Your task to perform on an android device: change text size in settings app Image 0: 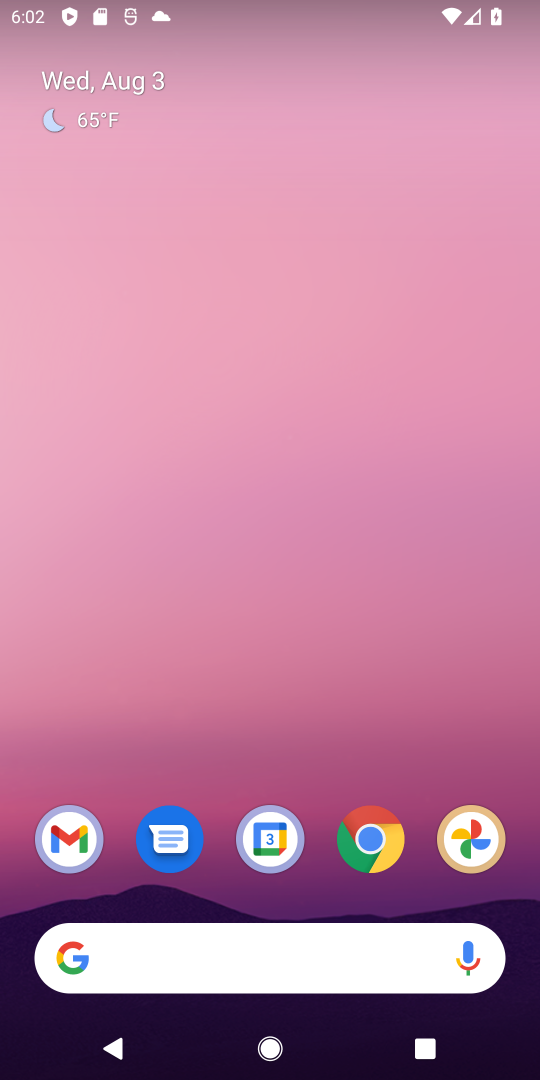
Step 0: drag from (231, 798) to (344, 20)
Your task to perform on an android device: change text size in settings app Image 1: 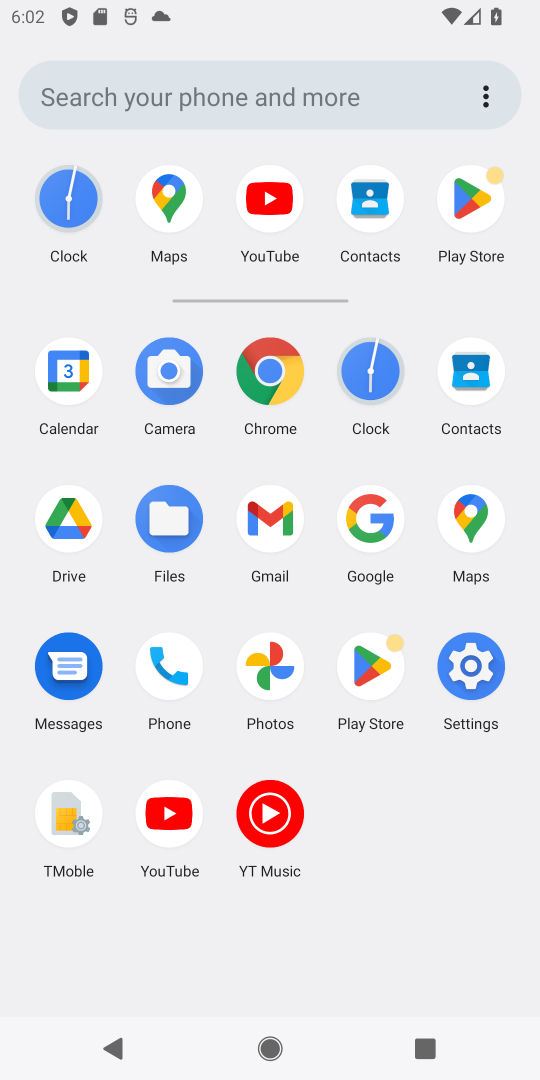
Step 1: click (467, 657)
Your task to perform on an android device: change text size in settings app Image 2: 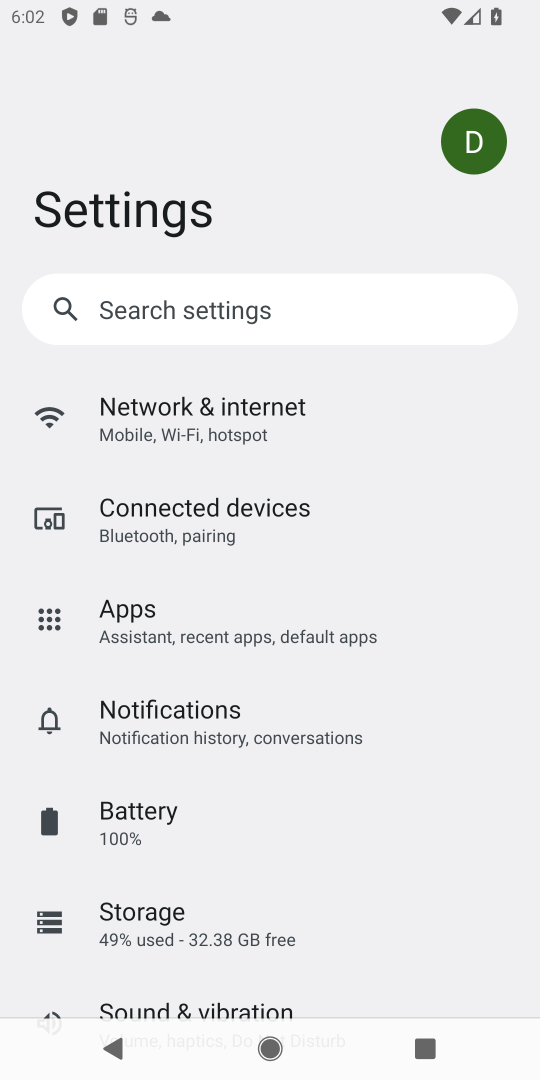
Step 2: click (244, 312)
Your task to perform on an android device: change text size in settings app Image 3: 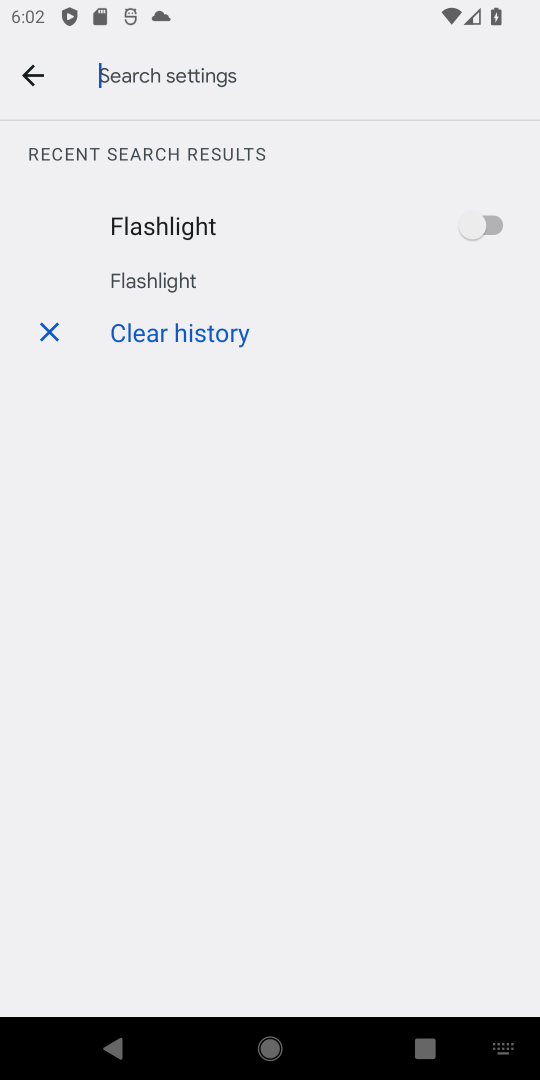
Step 3: type "text size"
Your task to perform on an android device: change text size in settings app Image 4: 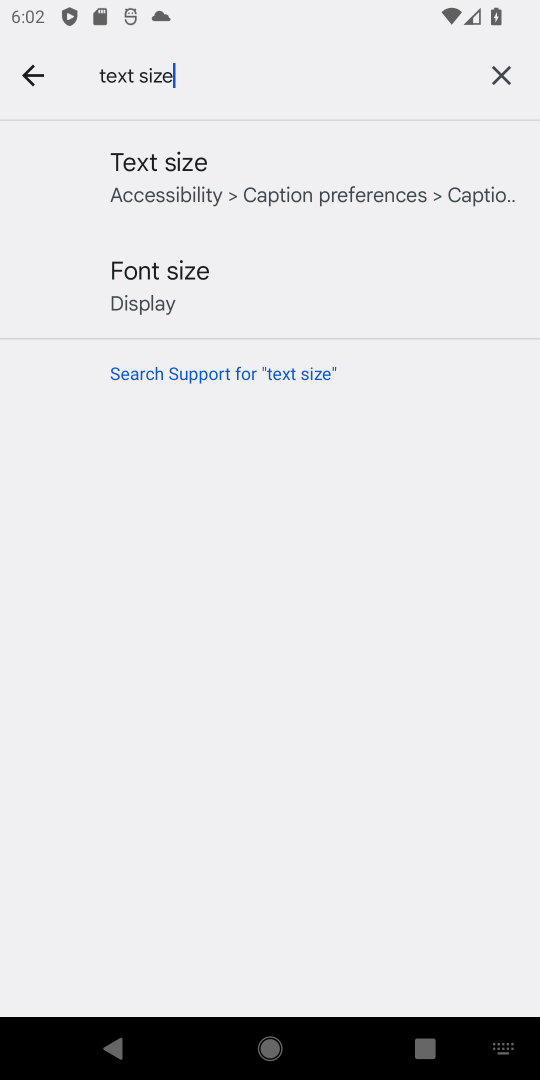
Step 4: click (322, 168)
Your task to perform on an android device: change text size in settings app Image 5: 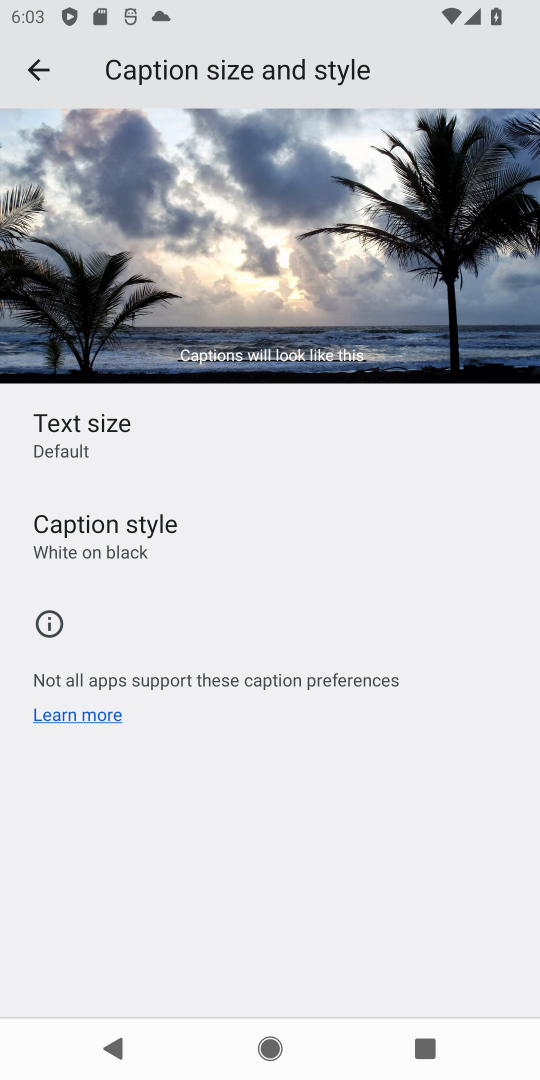
Step 5: click (129, 446)
Your task to perform on an android device: change text size in settings app Image 6: 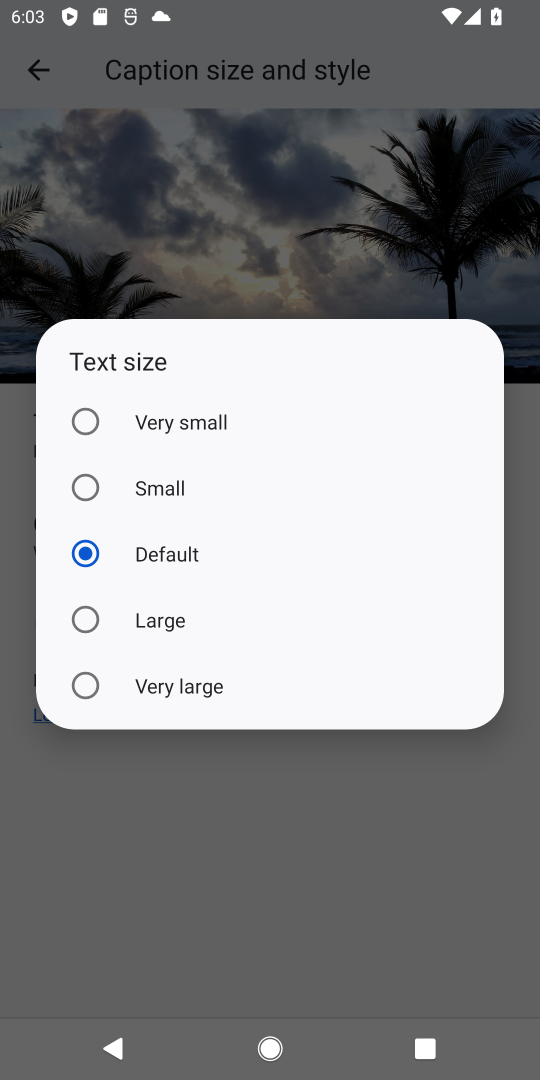
Step 6: click (79, 610)
Your task to perform on an android device: change text size in settings app Image 7: 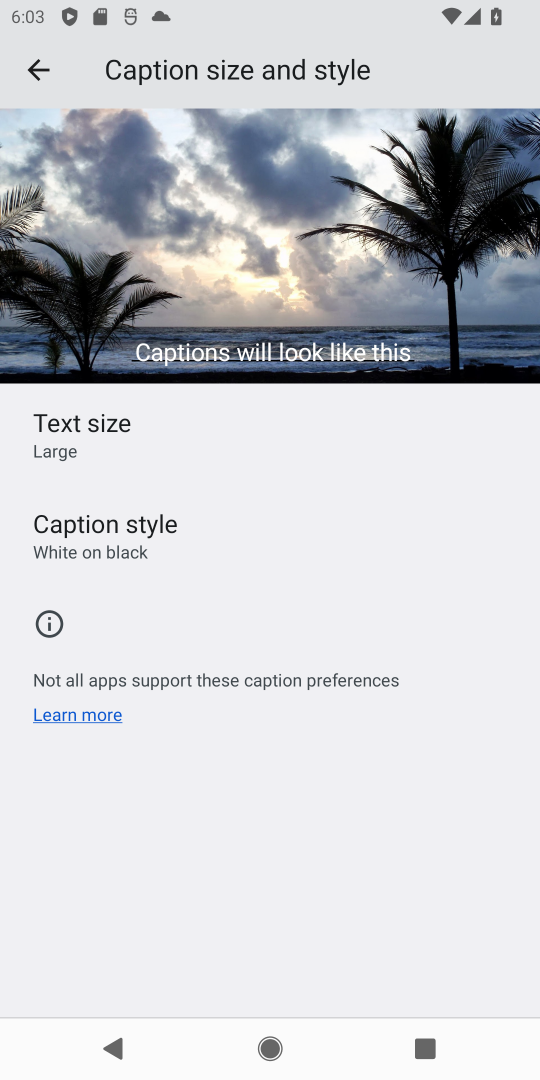
Step 7: click (31, 87)
Your task to perform on an android device: change text size in settings app Image 8: 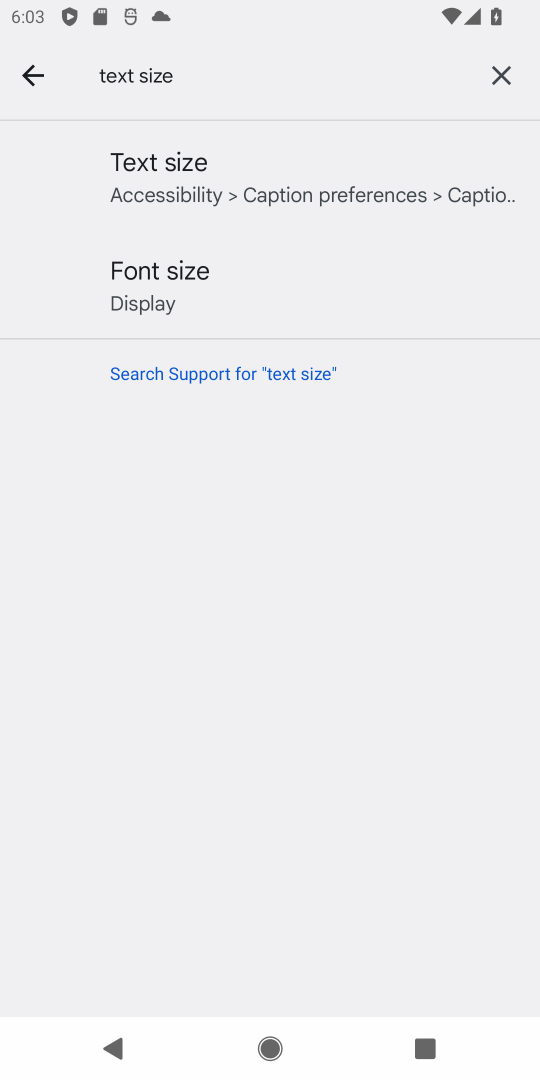
Step 8: click (161, 274)
Your task to perform on an android device: change text size in settings app Image 9: 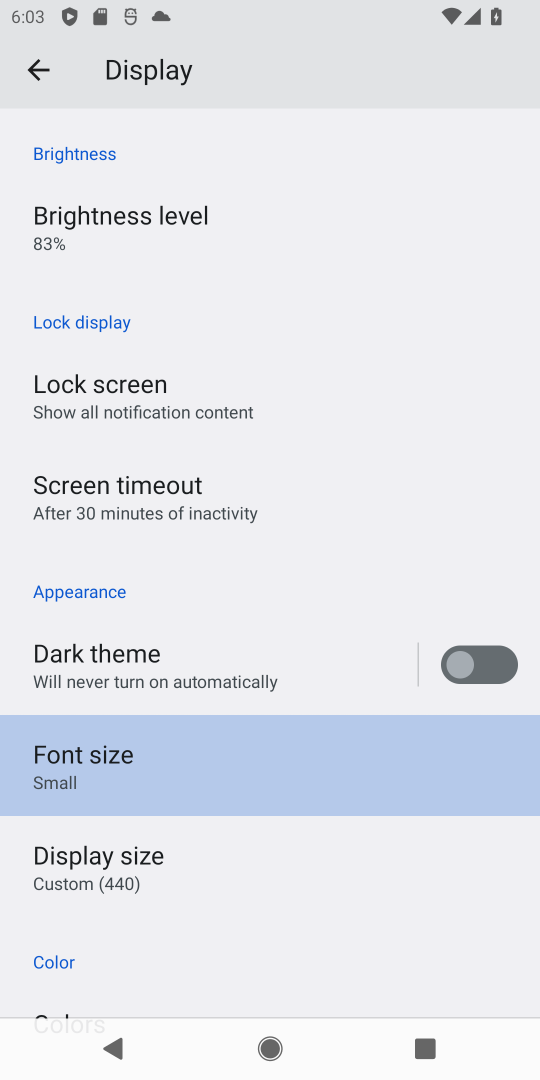
Step 9: task complete